Your task to perform on an android device: toggle javascript in the chrome app Image 0: 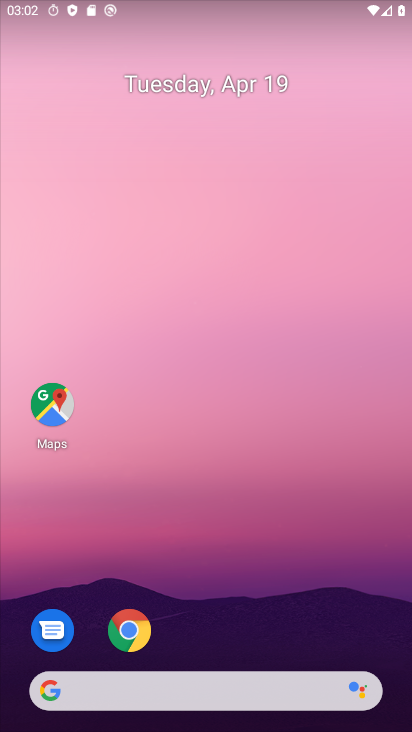
Step 0: drag from (268, 584) to (281, 164)
Your task to perform on an android device: toggle javascript in the chrome app Image 1: 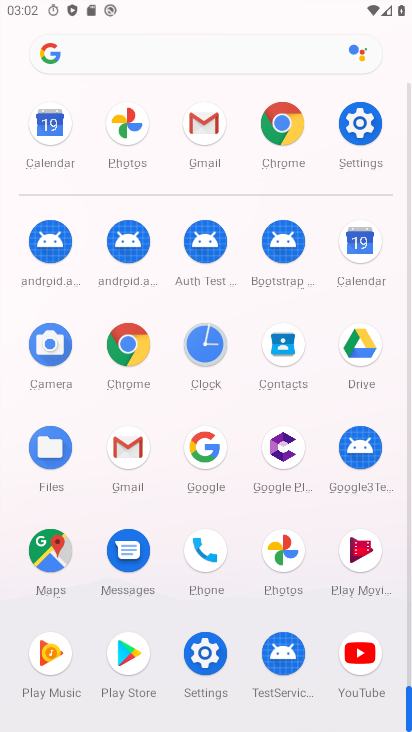
Step 1: click (285, 132)
Your task to perform on an android device: toggle javascript in the chrome app Image 2: 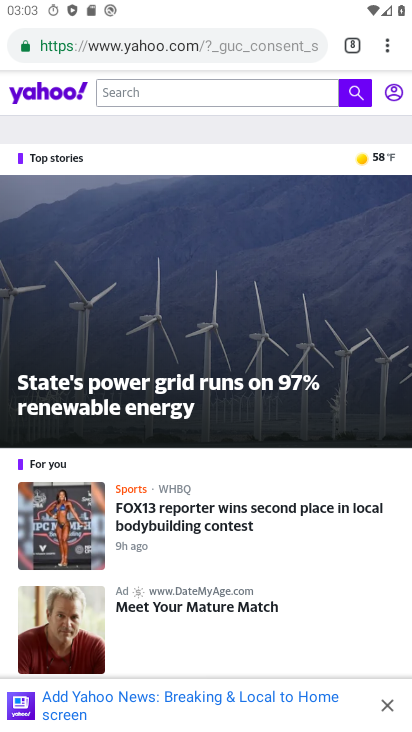
Step 2: click (386, 44)
Your task to perform on an android device: toggle javascript in the chrome app Image 3: 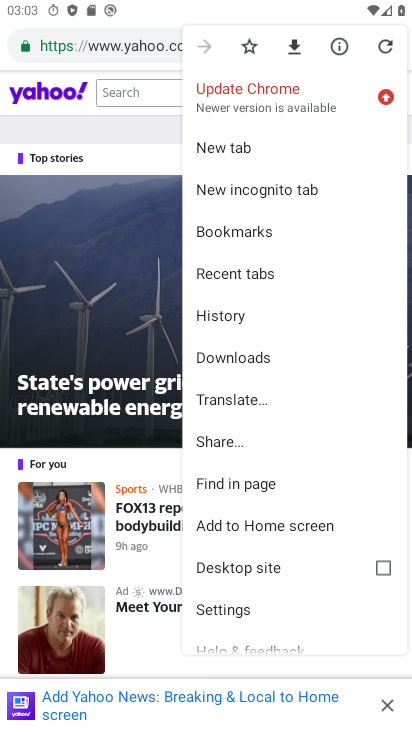
Step 3: click (251, 603)
Your task to perform on an android device: toggle javascript in the chrome app Image 4: 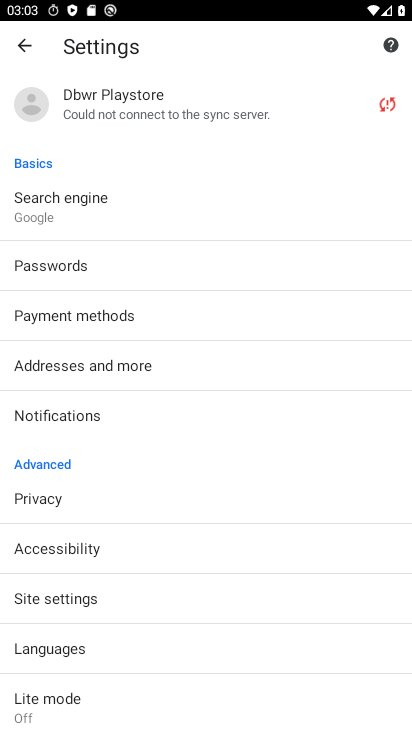
Step 4: click (120, 600)
Your task to perform on an android device: toggle javascript in the chrome app Image 5: 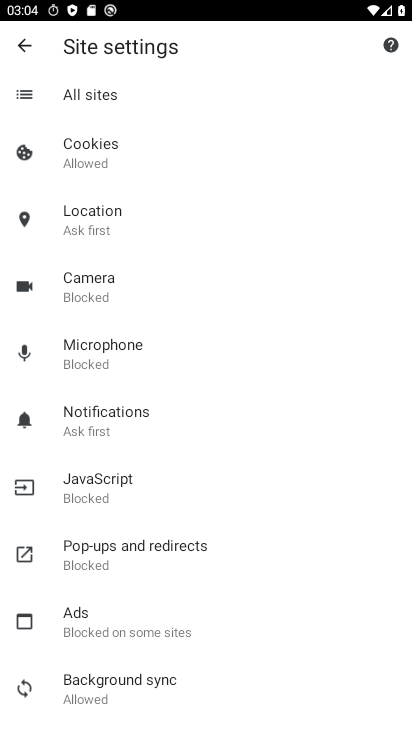
Step 5: click (111, 475)
Your task to perform on an android device: toggle javascript in the chrome app Image 6: 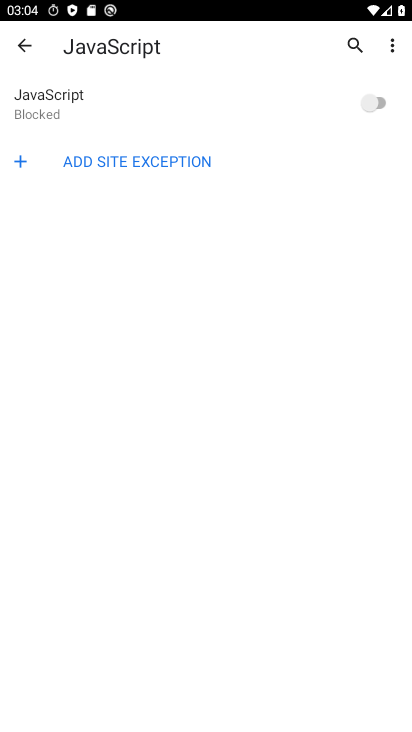
Step 6: task complete